Your task to perform on an android device: Show me the alarms in the clock app Image 0: 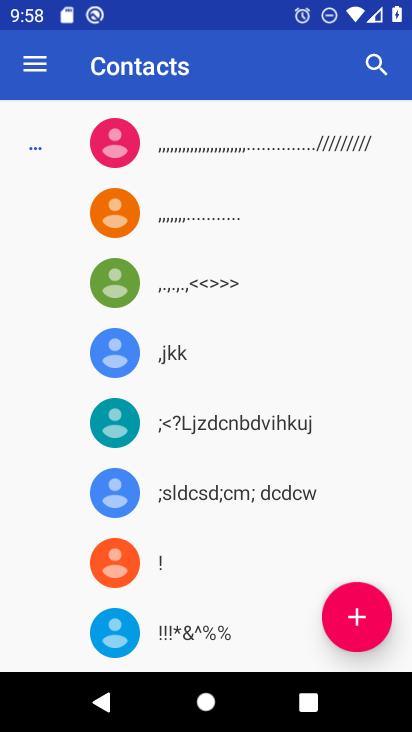
Step 0: press home button
Your task to perform on an android device: Show me the alarms in the clock app Image 1: 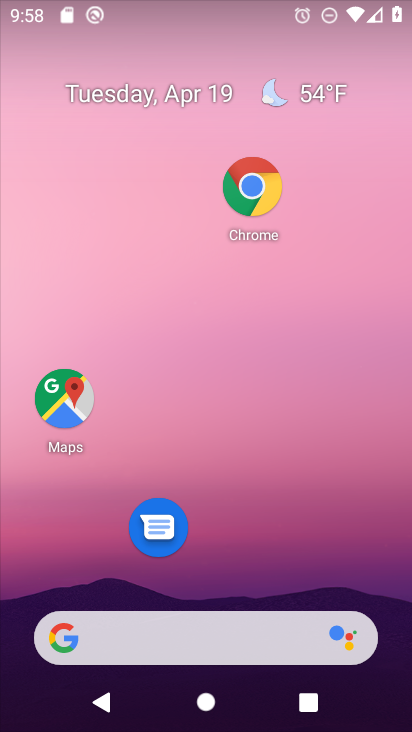
Step 1: drag from (266, 251) to (266, 207)
Your task to perform on an android device: Show me the alarms in the clock app Image 2: 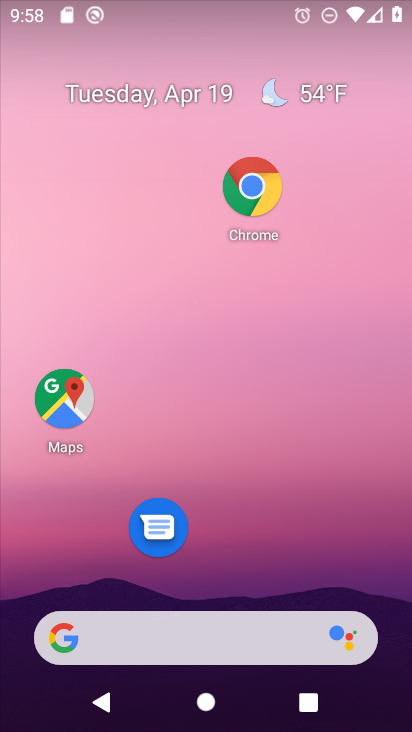
Step 2: drag from (232, 549) to (291, 151)
Your task to perform on an android device: Show me the alarms in the clock app Image 3: 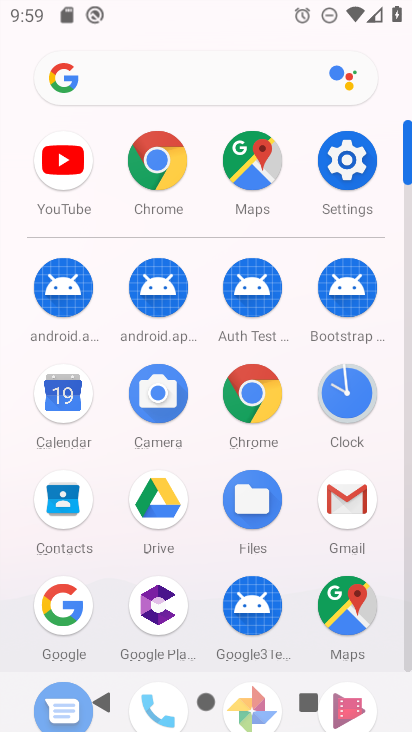
Step 3: click (346, 380)
Your task to perform on an android device: Show me the alarms in the clock app Image 4: 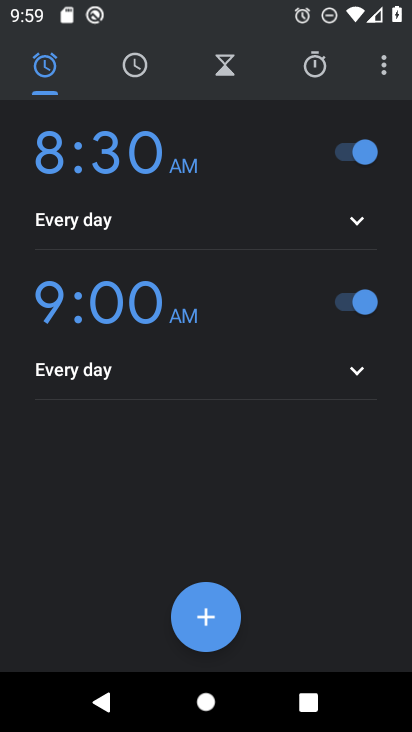
Step 4: click (351, 218)
Your task to perform on an android device: Show me the alarms in the clock app Image 5: 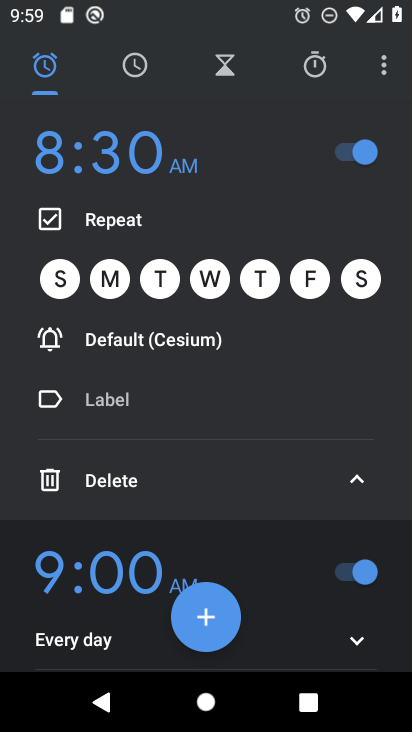
Step 5: click (36, 490)
Your task to perform on an android device: Show me the alarms in the clock app Image 6: 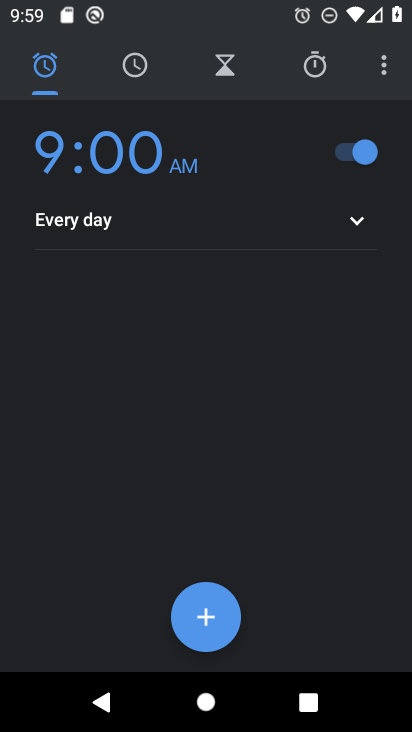
Step 6: click (210, 557)
Your task to perform on an android device: Show me the alarms in the clock app Image 7: 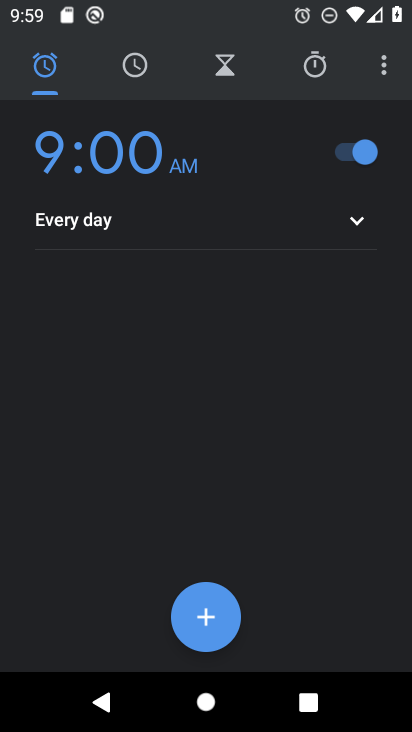
Step 7: click (210, 600)
Your task to perform on an android device: Show me the alarms in the clock app Image 8: 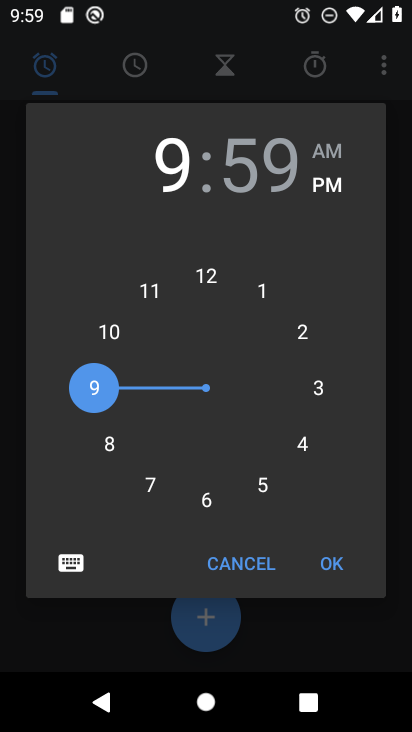
Step 8: click (150, 479)
Your task to perform on an android device: Show me the alarms in the clock app Image 9: 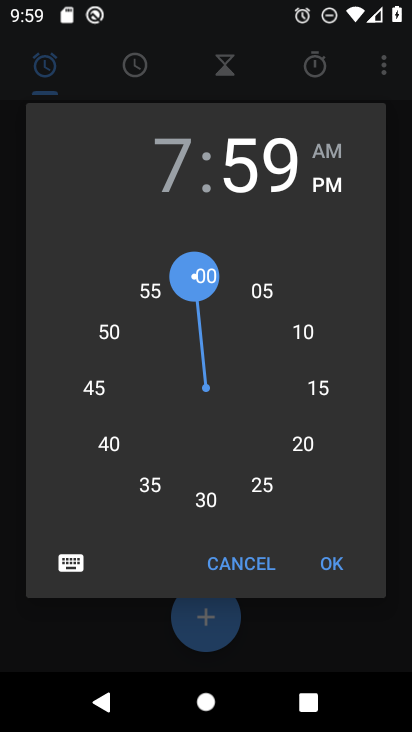
Step 9: click (332, 543)
Your task to perform on an android device: Show me the alarms in the clock app Image 10: 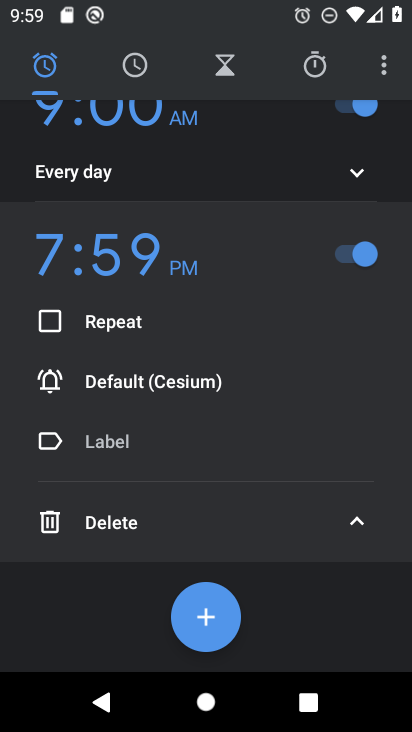
Step 10: click (95, 326)
Your task to perform on an android device: Show me the alarms in the clock app Image 11: 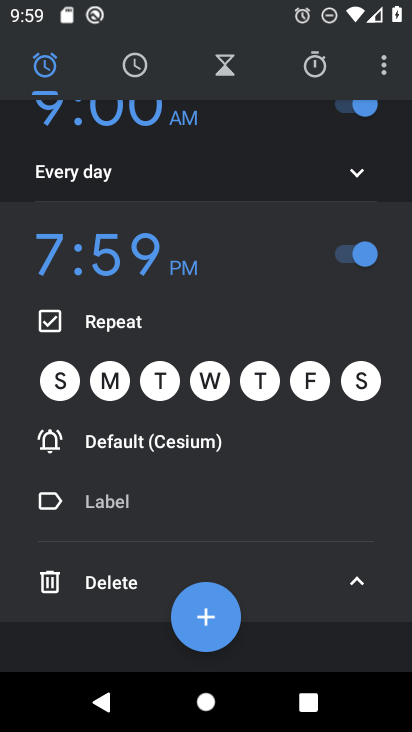
Step 11: click (356, 590)
Your task to perform on an android device: Show me the alarms in the clock app Image 12: 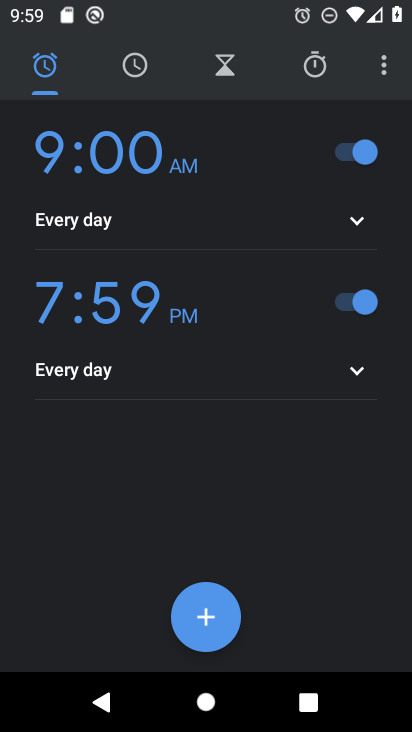
Step 12: task complete